Your task to perform on an android device: Go to Google Image 0: 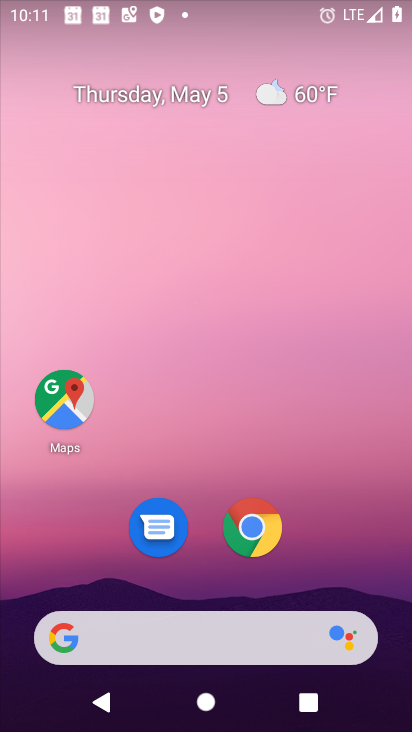
Step 0: click (114, 617)
Your task to perform on an android device: Go to Google Image 1: 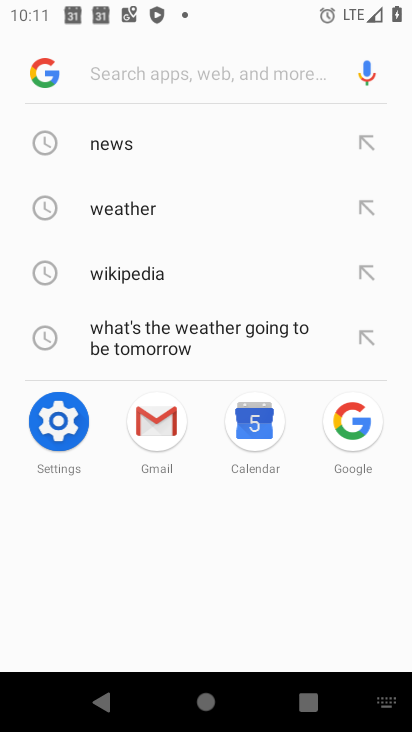
Step 1: click (43, 68)
Your task to perform on an android device: Go to Google Image 2: 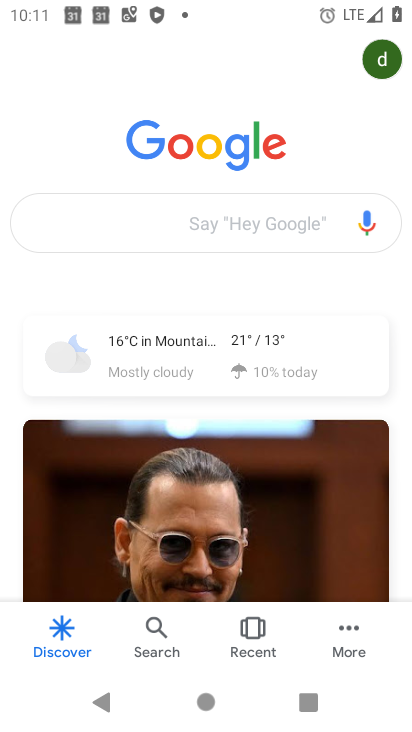
Step 2: task complete